Your task to perform on an android device: turn on data saver in the chrome app Image 0: 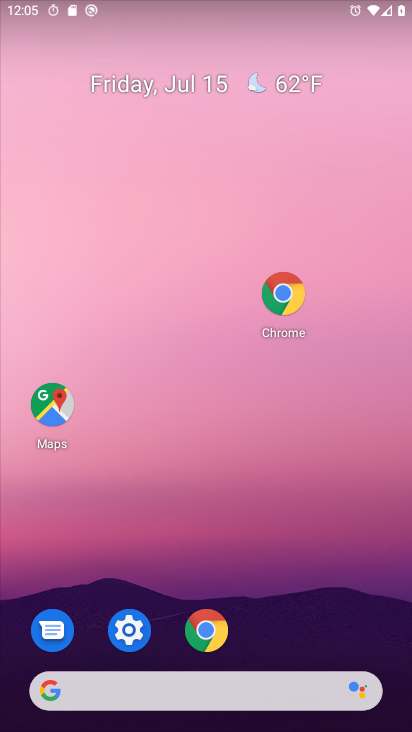
Step 0: drag from (260, 670) to (212, 81)
Your task to perform on an android device: turn on data saver in the chrome app Image 1: 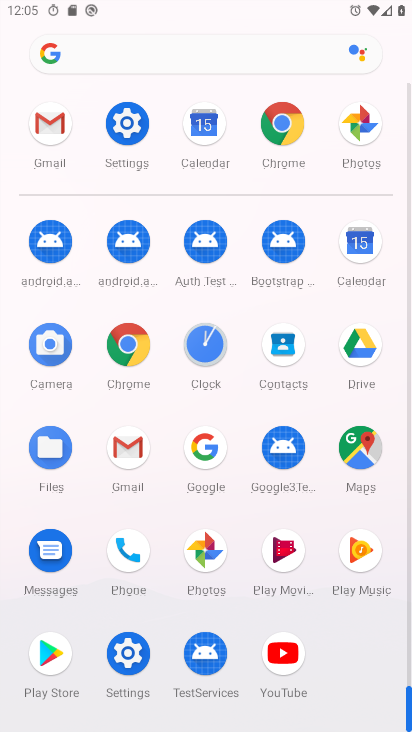
Step 1: click (273, 130)
Your task to perform on an android device: turn on data saver in the chrome app Image 2: 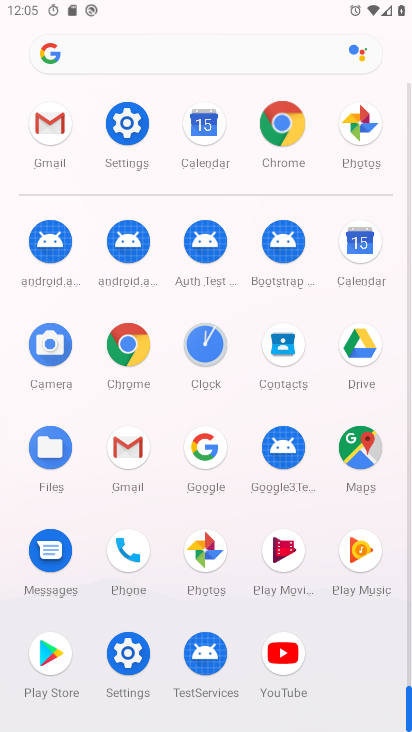
Step 2: click (273, 130)
Your task to perform on an android device: turn on data saver in the chrome app Image 3: 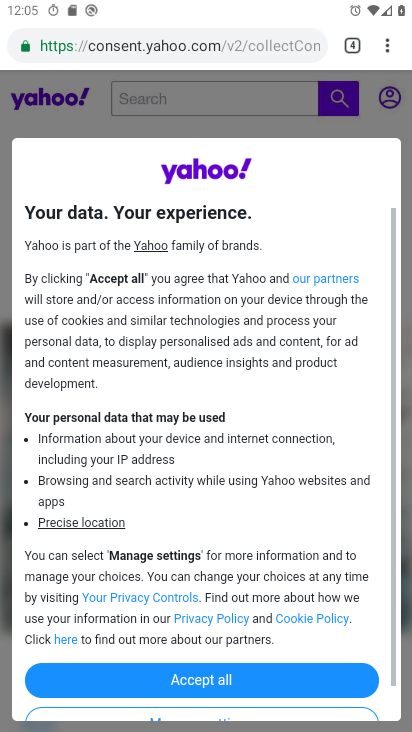
Step 3: drag from (386, 43) to (225, 592)
Your task to perform on an android device: turn on data saver in the chrome app Image 4: 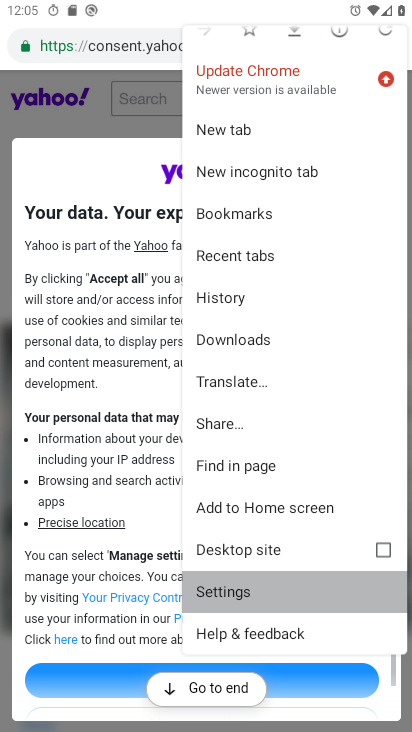
Step 4: click (225, 592)
Your task to perform on an android device: turn on data saver in the chrome app Image 5: 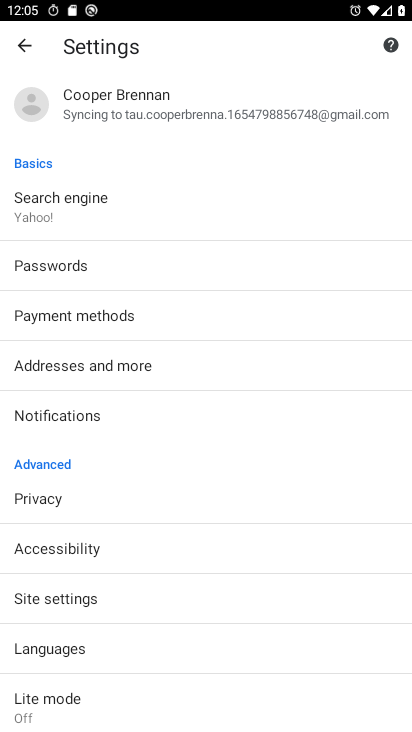
Step 5: click (59, 693)
Your task to perform on an android device: turn on data saver in the chrome app Image 6: 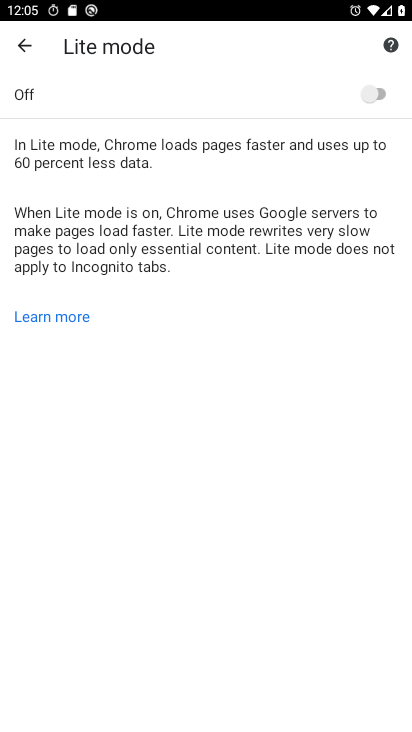
Step 6: click (368, 106)
Your task to perform on an android device: turn on data saver in the chrome app Image 7: 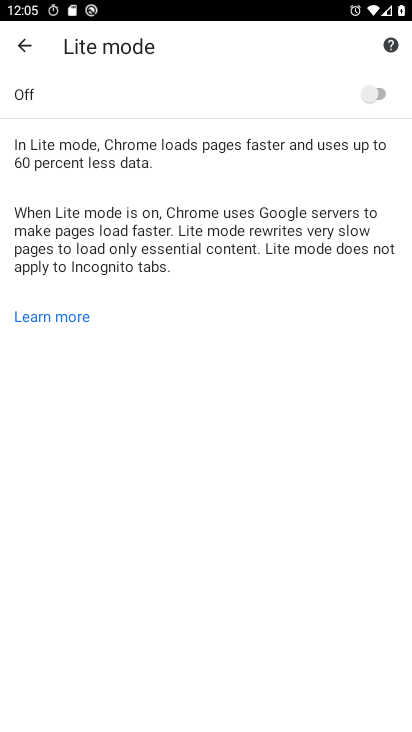
Step 7: click (369, 99)
Your task to perform on an android device: turn on data saver in the chrome app Image 8: 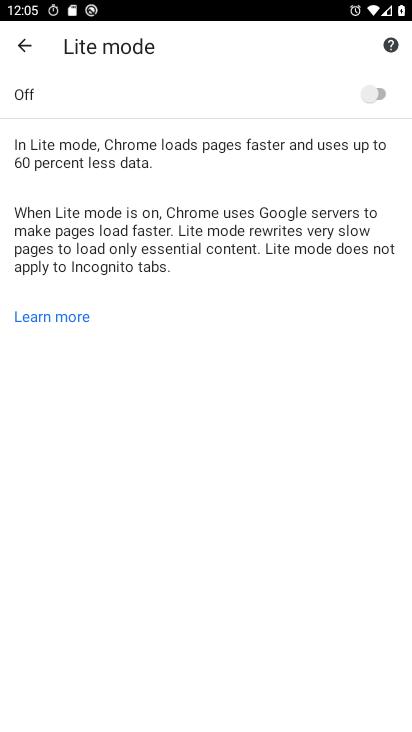
Step 8: click (374, 96)
Your task to perform on an android device: turn on data saver in the chrome app Image 9: 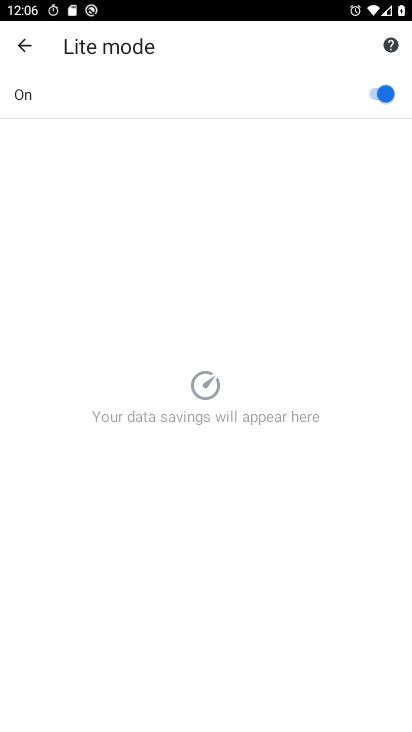
Step 9: task complete